Your task to perform on an android device: clear all cookies in the chrome app Image 0: 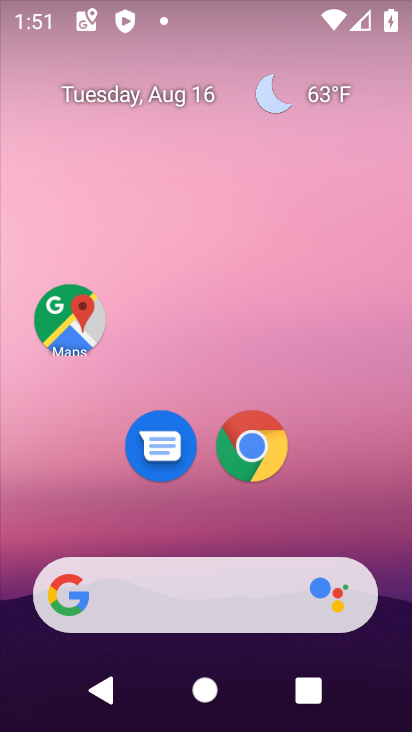
Step 0: press home button
Your task to perform on an android device: clear all cookies in the chrome app Image 1: 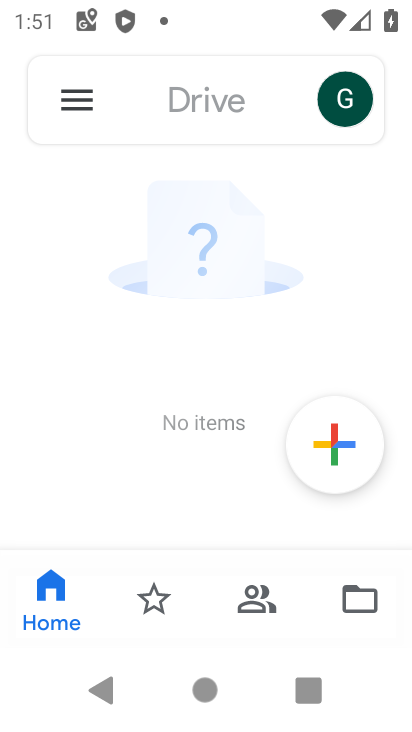
Step 1: click (247, 5)
Your task to perform on an android device: clear all cookies in the chrome app Image 2: 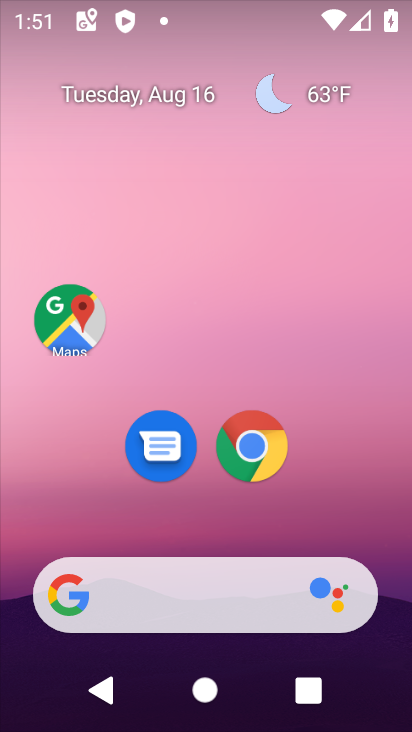
Step 2: click (249, 439)
Your task to perform on an android device: clear all cookies in the chrome app Image 3: 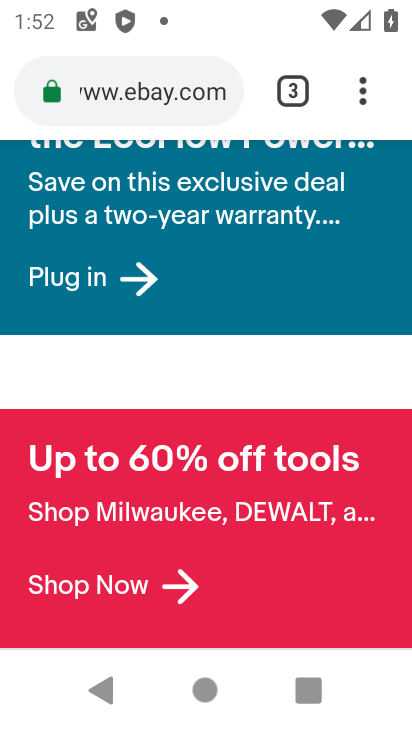
Step 3: click (359, 87)
Your task to perform on an android device: clear all cookies in the chrome app Image 4: 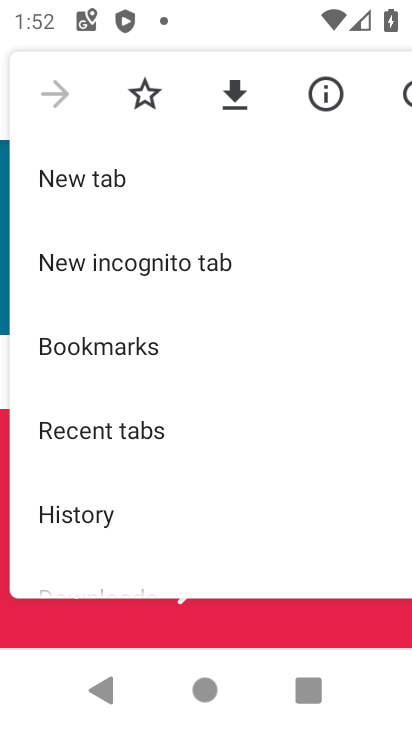
Step 4: drag from (133, 536) to (142, 335)
Your task to perform on an android device: clear all cookies in the chrome app Image 5: 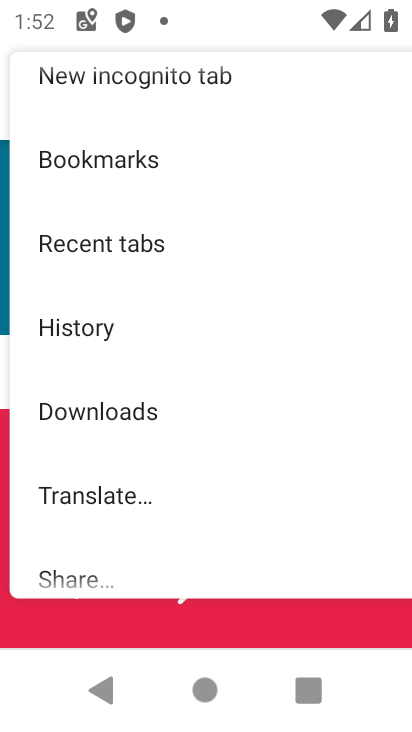
Step 5: click (122, 321)
Your task to perform on an android device: clear all cookies in the chrome app Image 6: 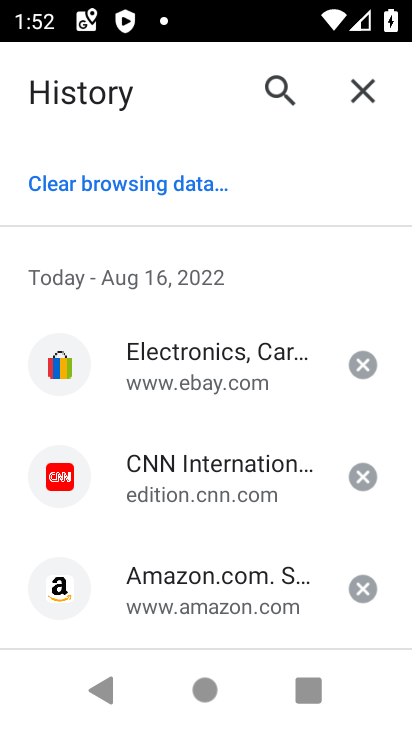
Step 6: click (134, 185)
Your task to perform on an android device: clear all cookies in the chrome app Image 7: 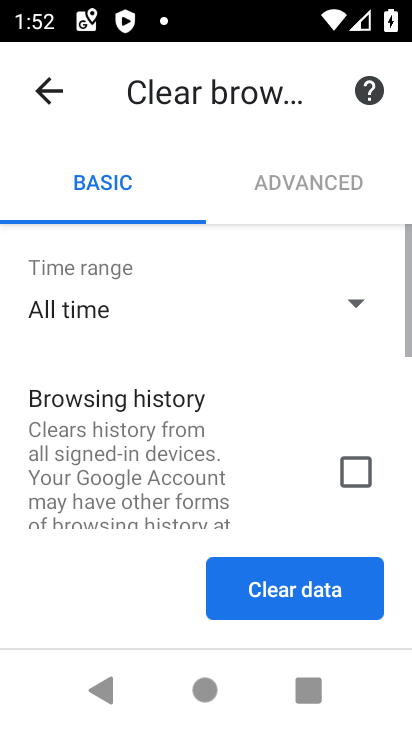
Step 7: drag from (282, 509) to (294, 282)
Your task to perform on an android device: clear all cookies in the chrome app Image 8: 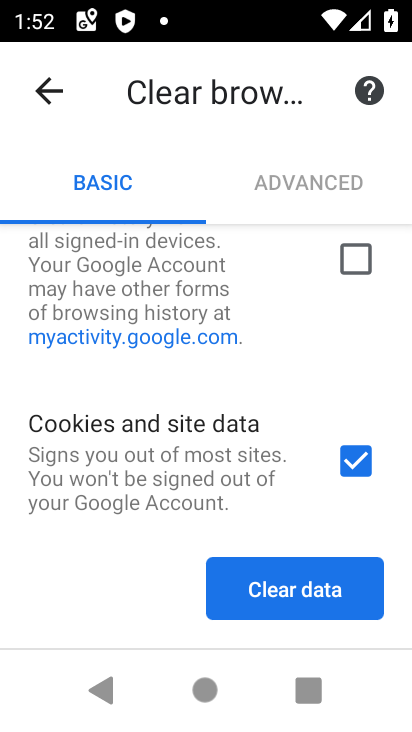
Step 8: drag from (283, 514) to (306, 233)
Your task to perform on an android device: clear all cookies in the chrome app Image 9: 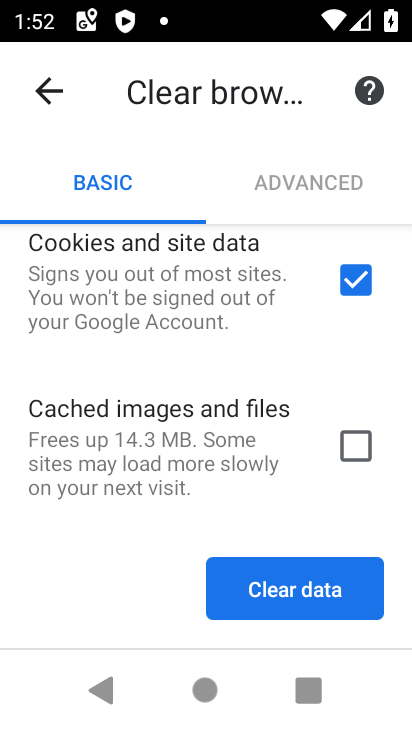
Step 9: click (296, 590)
Your task to perform on an android device: clear all cookies in the chrome app Image 10: 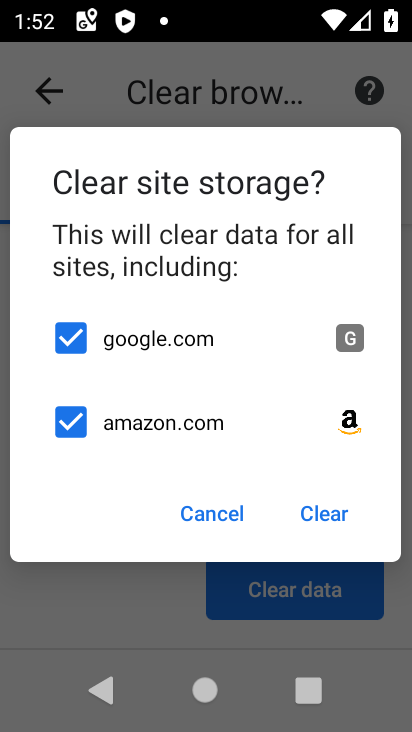
Step 10: click (312, 516)
Your task to perform on an android device: clear all cookies in the chrome app Image 11: 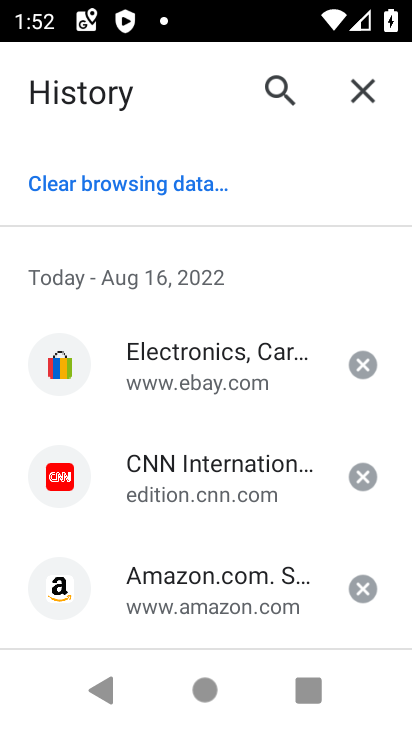
Step 11: task complete